Your task to perform on an android device: Show me the alarms in the clock app Image 0: 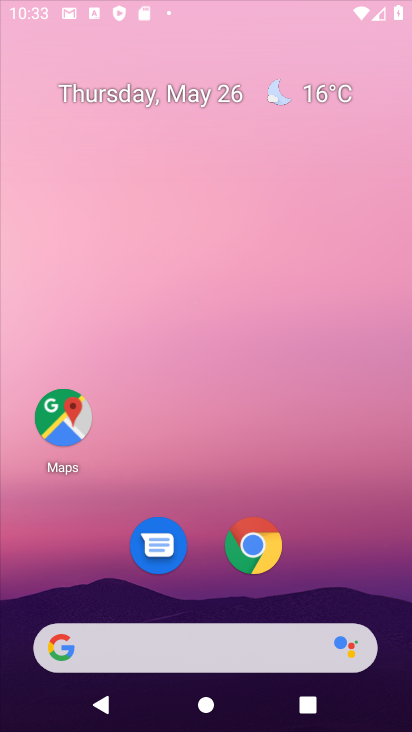
Step 0: press home button
Your task to perform on an android device: Show me the alarms in the clock app Image 1: 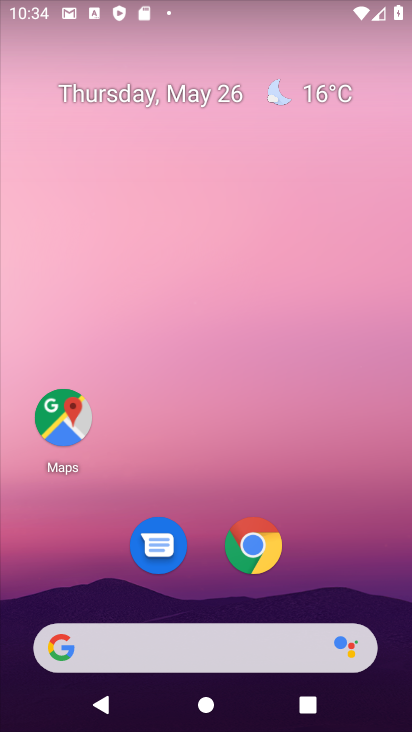
Step 1: drag from (306, 584) to (349, 60)
Your task to perform on an android device: Show me the alarms in the clock app Image 2: 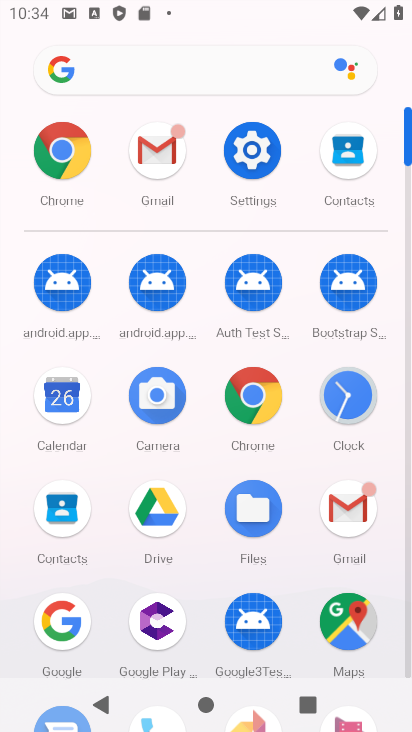
Step 2: click (348, 396)
Your task to perform on an android device: Show me the alarms in the clock app Image 3: 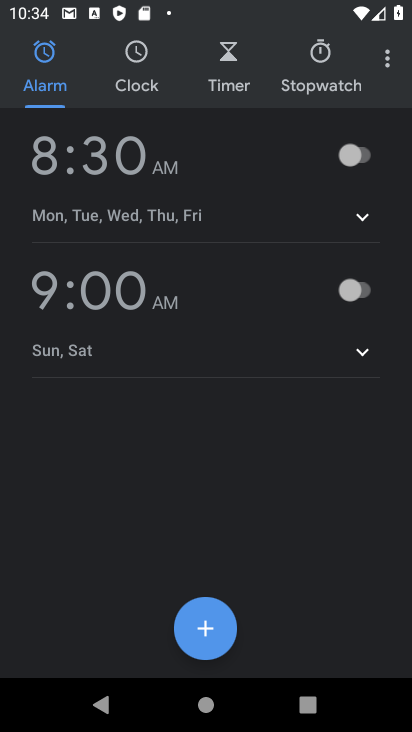
Step 3: task complete